Your task to perform on an android device: Go to Yahoo.com Image 0: 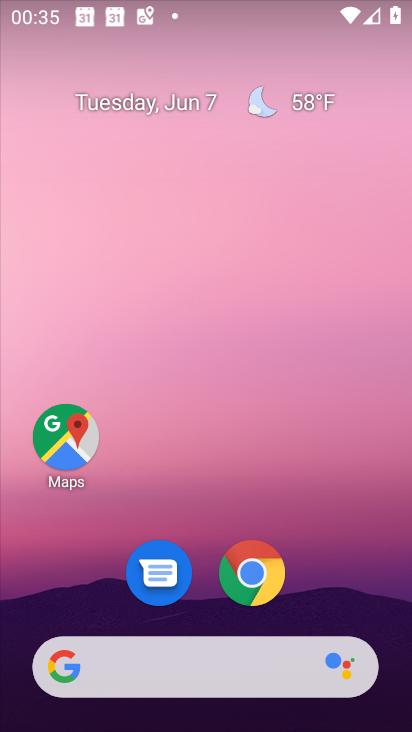
Step 0: press home button
Your task to perform on an android device: Go to Yahoo.com Image 1: 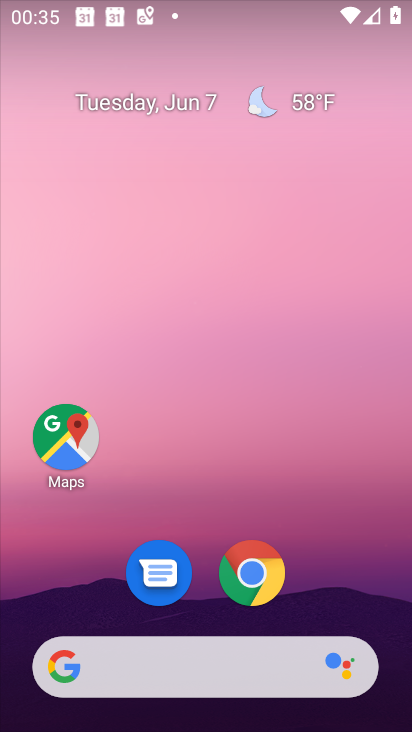
Step 1: click (262, 566)
Your task to perform on an android device: Go to Yahoo.com Image 2: 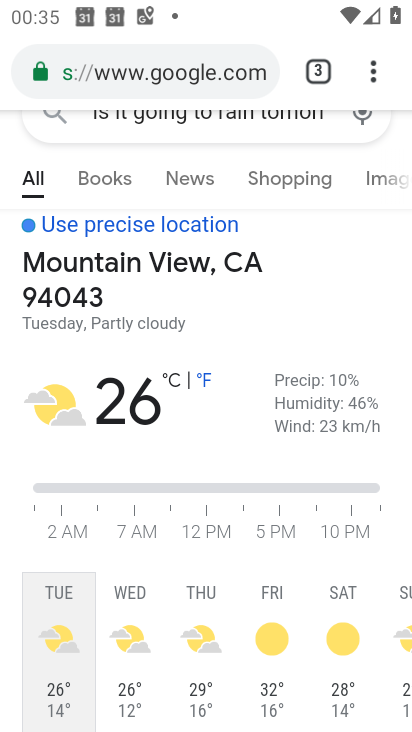
Step 2: click (181, 70)
Your task to perform on an android device: Go to Yahoo.com Image 3: 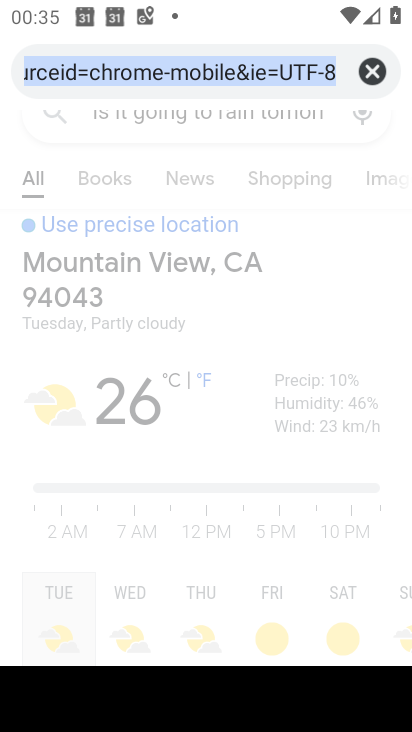
Step 3: type " Yahoo.com"
Your task to perform on an android device: Go to Yahoo.com Image 4: 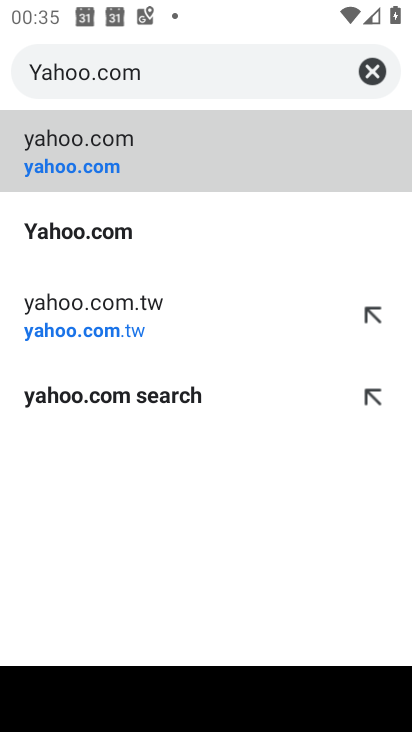
Step 4: click (336, 149)
Your task to perform on an android device: Go to Yahoo.com Image 5: 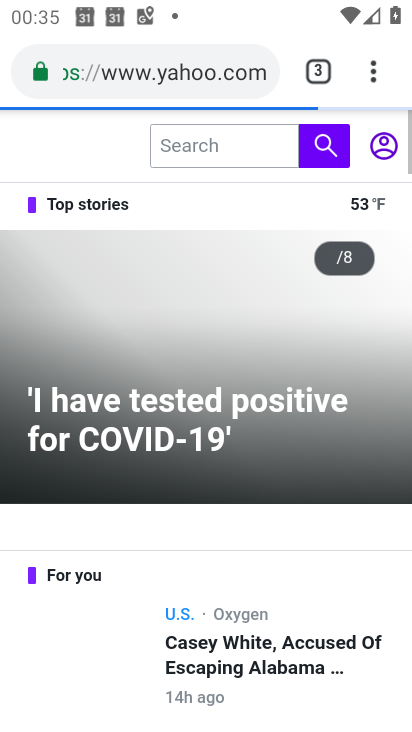
Step 5: task complete